Your task to perform on an android device: snooze an email in the gmail app Image 0: 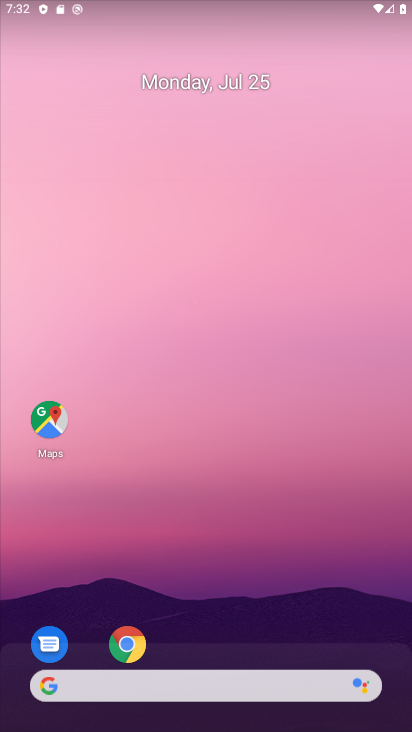
Step 0: drag from (281, 659) to (266, 144)
Your task to perform on an android device: snooze an email in the gmail app Image 1: 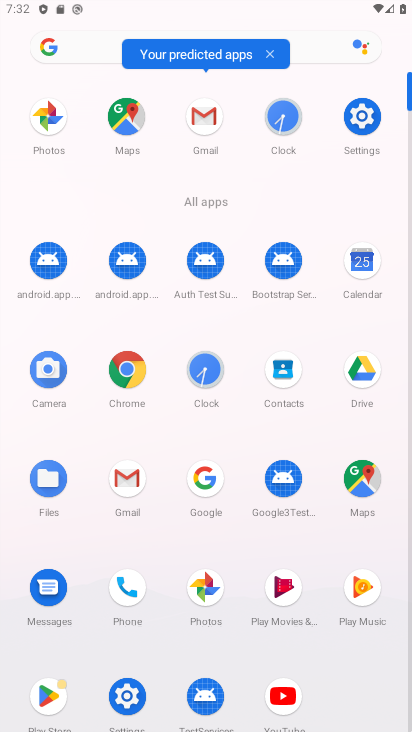
Step 1: click (203, 104)
Your task to perform on an android device: snooze an email in the gmail app Image 2: 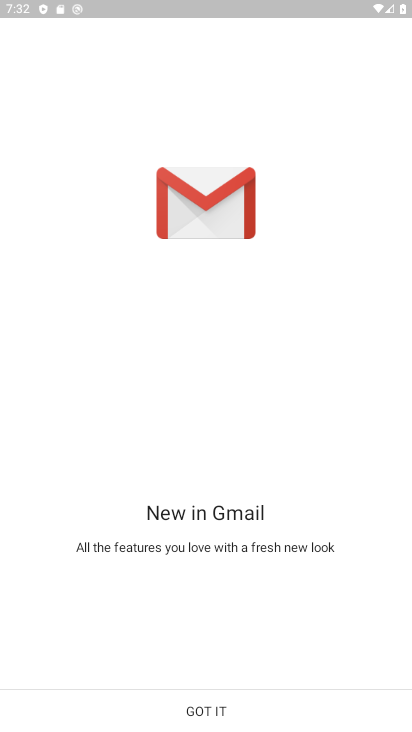
Step 2: click (192, 706)
Your task to perform on an android device: snooze an email in the gmail app Image 3: 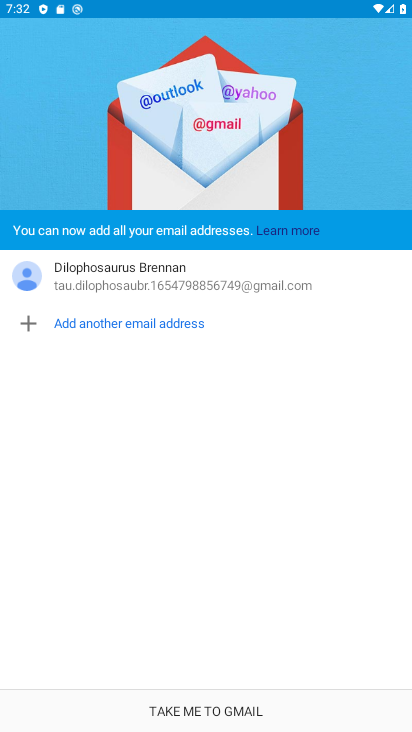
Step 3: click (192, 706)
Your task to perform on an android device: snooze an email in the gmail app Image 4: 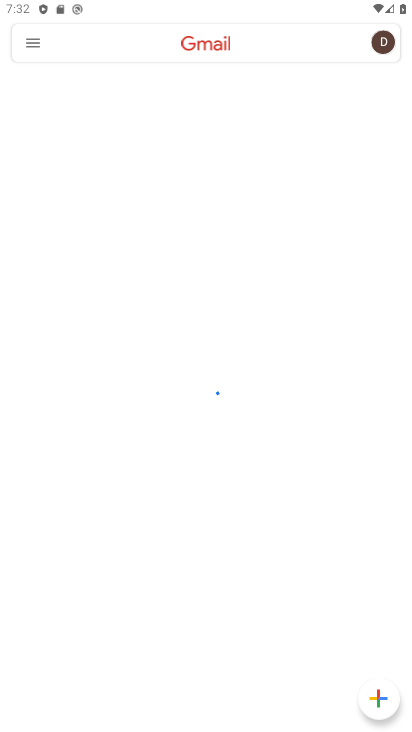
Step 4: click (32, 41)
Your task to perform on an android device: snooze an email in the gmail app Image 5: 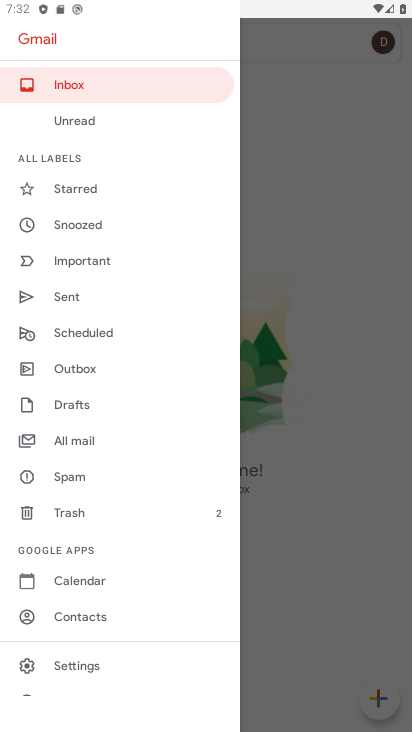
Step 5: click (65, 217)
Your task to perform on an android device: snooze an email in the gmail app Image 6: 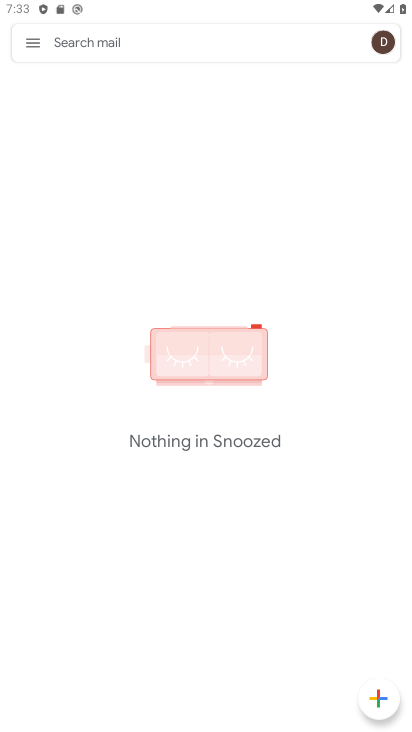
Step 6: task complete